Your task to perform on an android device: Open eBay Image 0: 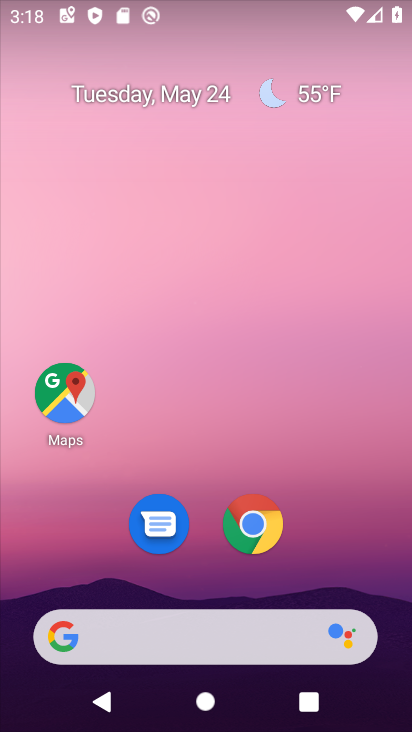
Step 0: click (235, 643)
Your task to perform on an android device: Open eBay Image 1: 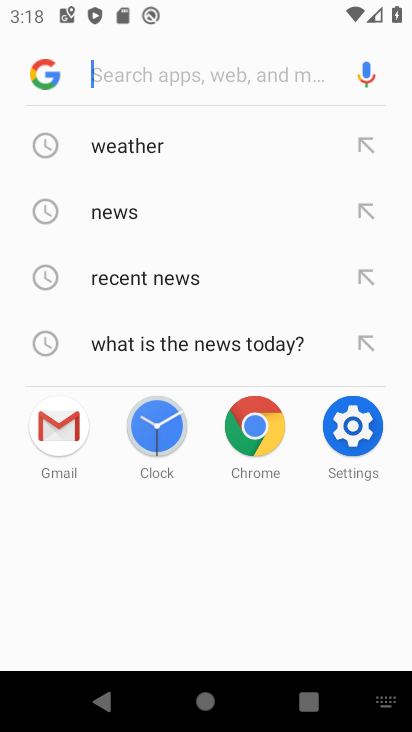
Step 1: type "ebay"
Your task to perform on an android device: Open eBay Image 2: 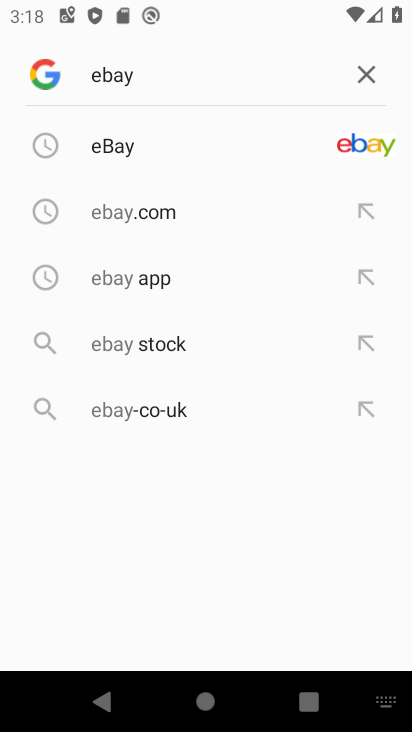
Step 2: click (117, 149)
Your task to perform on an android device: Open eBay Image 3: 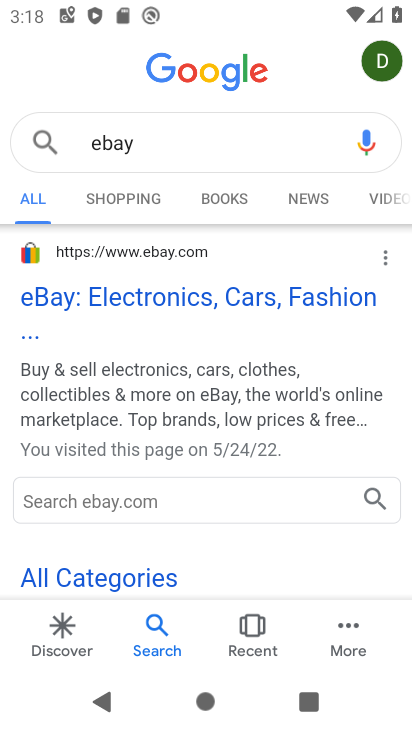
Step 3: click (56, 295)
Your task to perform on an android device: Open eBay Image 4: 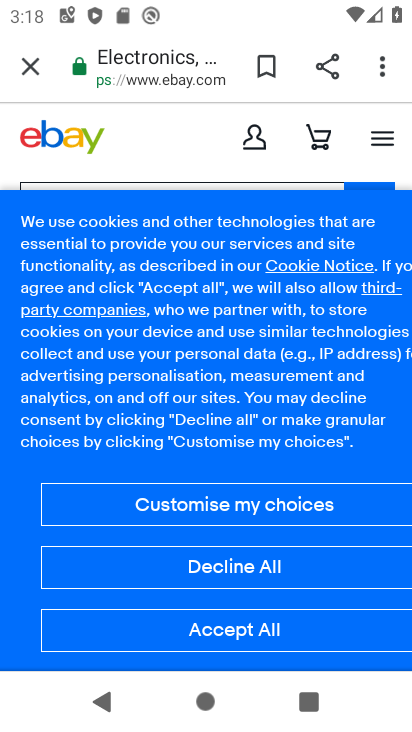
Step 4: task complete